Your task to perform on an android device: Go to notification settings Image 0: 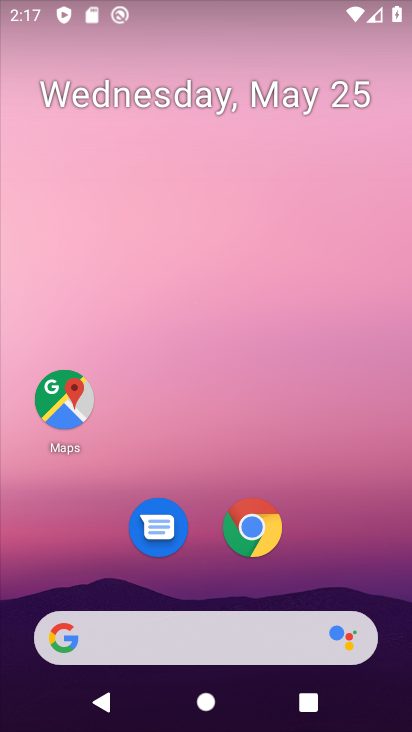
Step 0: drag from (176, 581) to (252, 78)
Your task to perform on an android device: Go to notification settings Image 1: 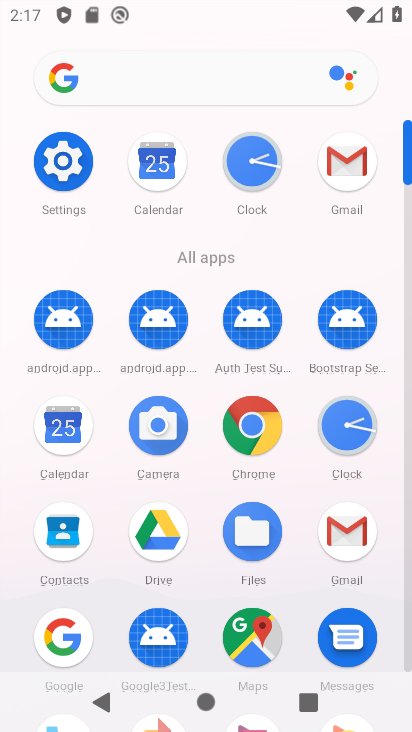
Step 1: click (55, 139)
Your task to perform on an android device: Go to notification settings Image 2: 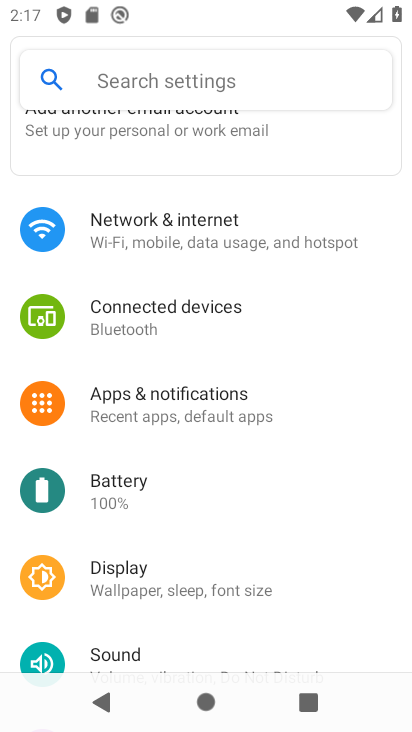
Step 2: click (169, 417)
Your task to perform on an android device: Go to notification settings Image 3: 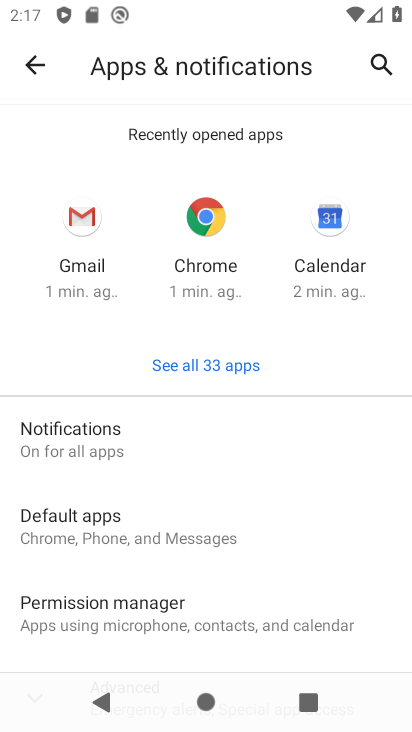
Step 3: task complete